Your task to perform on an android device: Search for Italian restaurants on Maps Image 0: 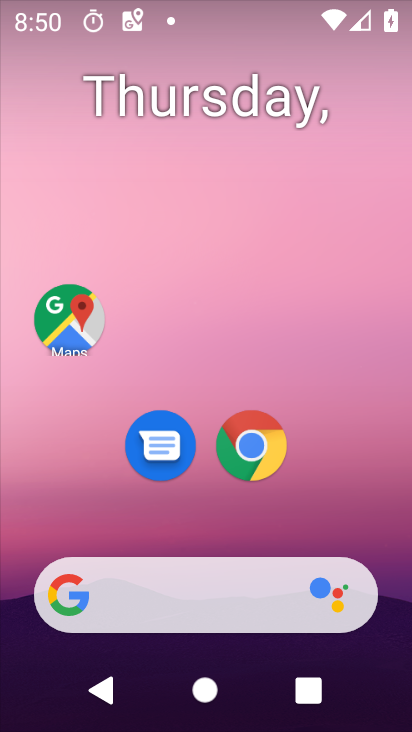
Step 0: click (71, 338)
Your task to perform on an android device: Search for Italian restaurants on Maps Image 1: 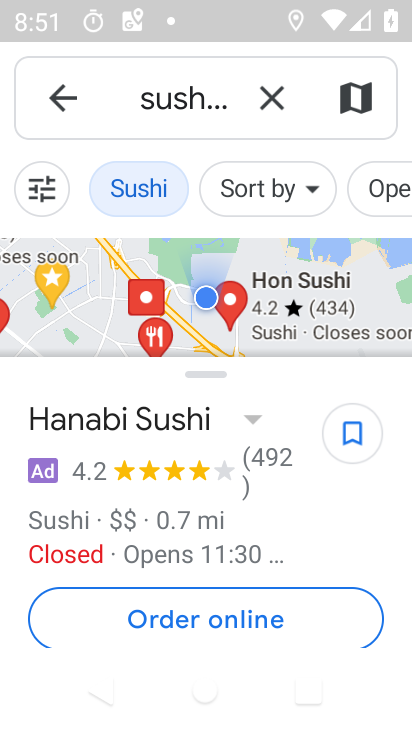
Step 1: click (269, 97)
Your task to perform on an android device: Search for Italian restaurants on Maps Image 2: 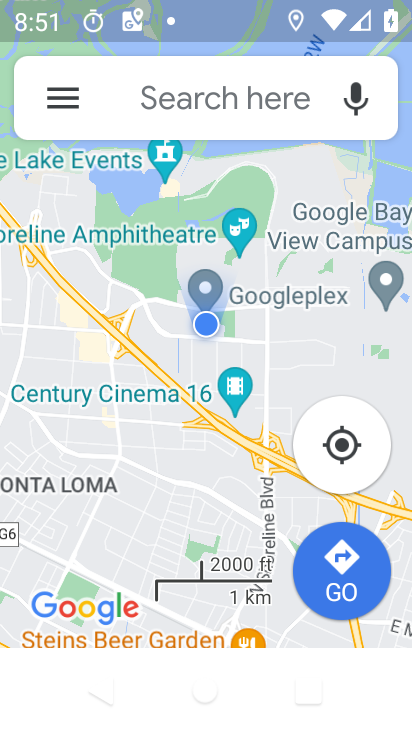
Step 2: click (177, 89)
Your task to perform on an android device: Search for Italian restaurants on Maps Image 3: 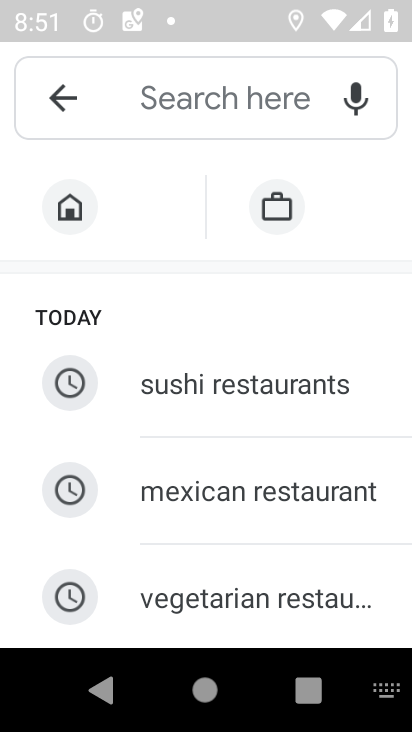
Step 3: drag from (12, 643) to (266, 170)
Your task to perform on an android device: Search for Italian restaurants on Maps Image 4: 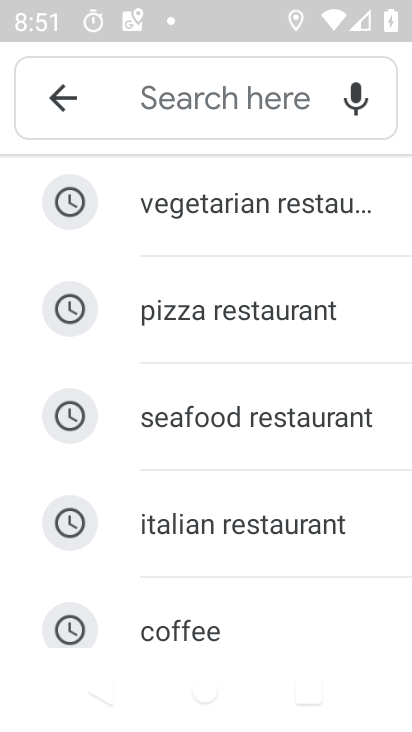
Step 4: click (132, 523)
Your task to perform on an android device: Search for Italian restaurants on Maps Image 5: 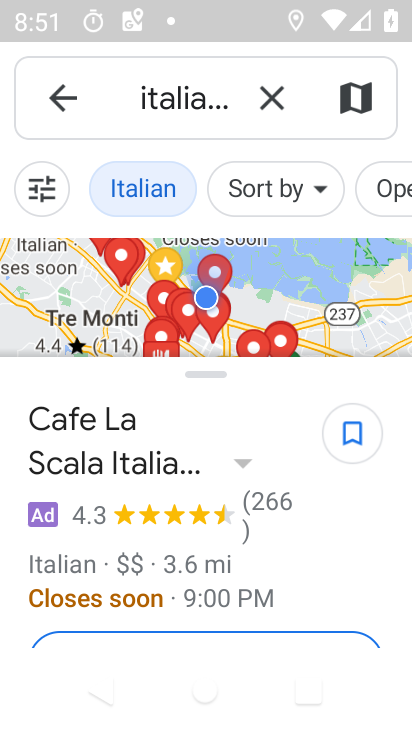
Step 5: task complete